Your task to perform on an android device: Go to notification settings Image 0: 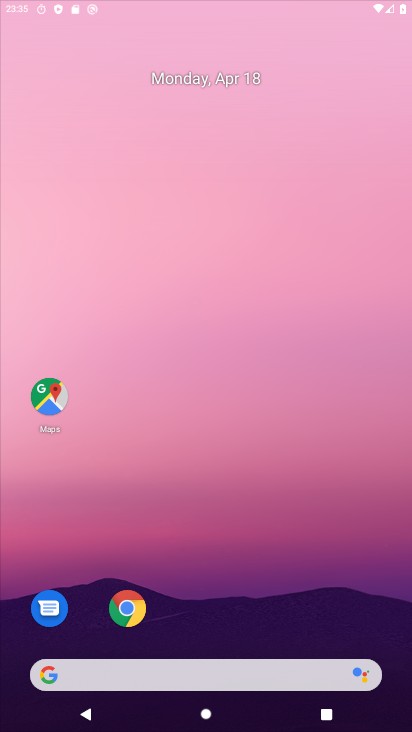
Step 0: click (242, 183)
Your task to perform on an android device: Go to notification settings Image 1: 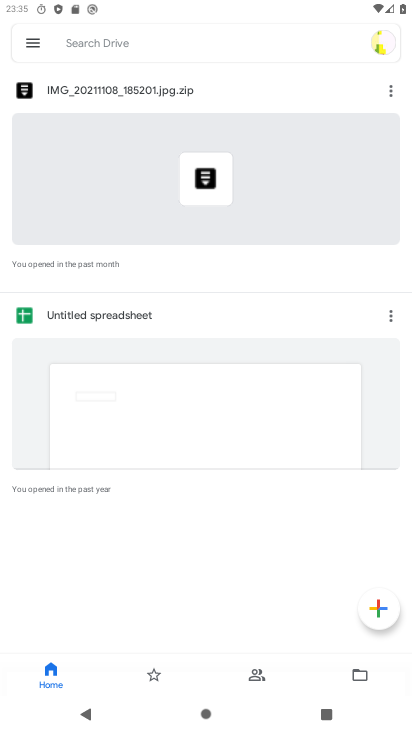
Step 1: press home button
Your task to perform on an android device: Go to notification settings Image 2: 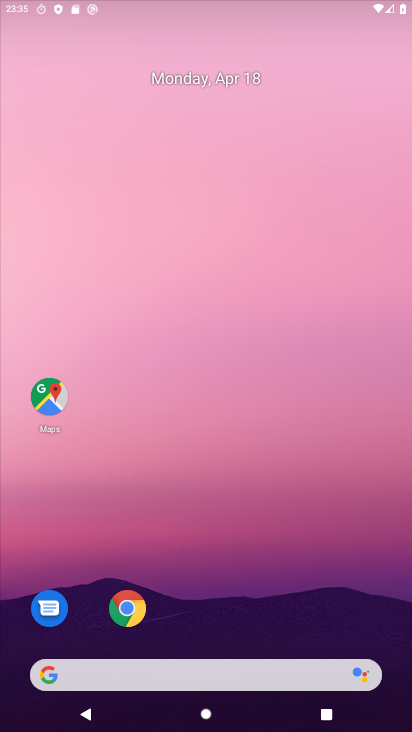
Step 2: drag from (239, 459) to (245, 125)
Your task to perform on an android device: Go to notification settings Image 3: 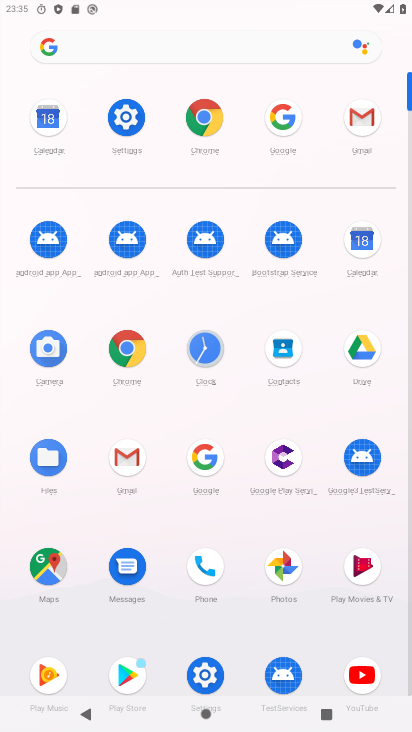
Step 3: click (124, 116)
Your task to perform on an android device: Go to notification settings Image 4: 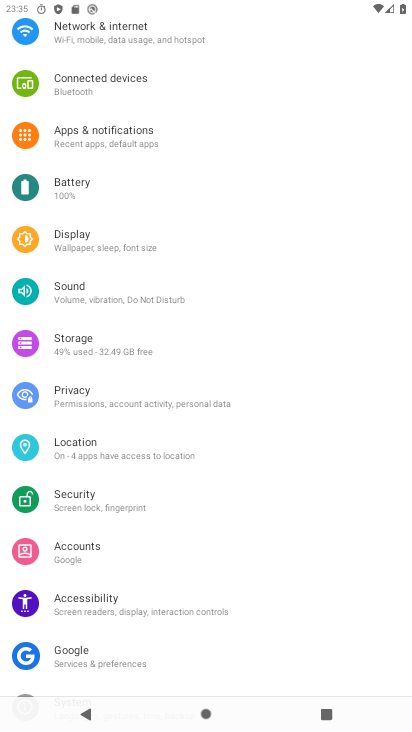
Step 4: click (125, 138)
Your task to perform on an android device: Go to notification settings Image 5: 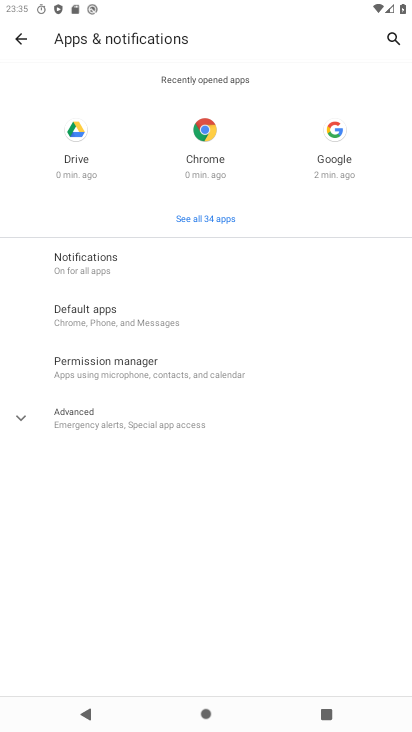
Step 5: click (105, 252)
Your task to perform on an android device: Go to notification settings Image 6: 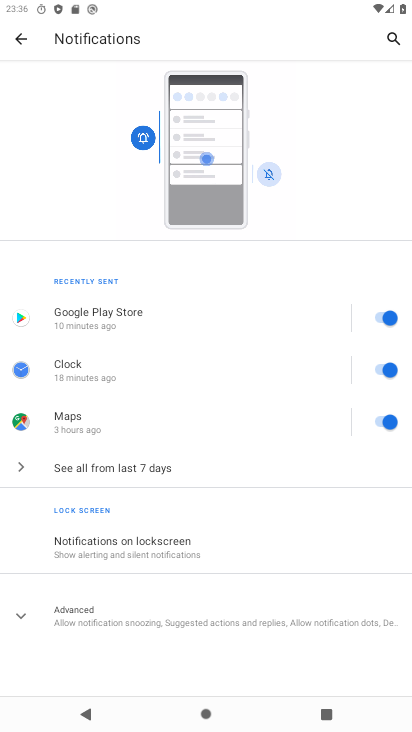
Step 6: task complete